Your task to perform on an android device: turn pop-ups off in chrome Image 0: 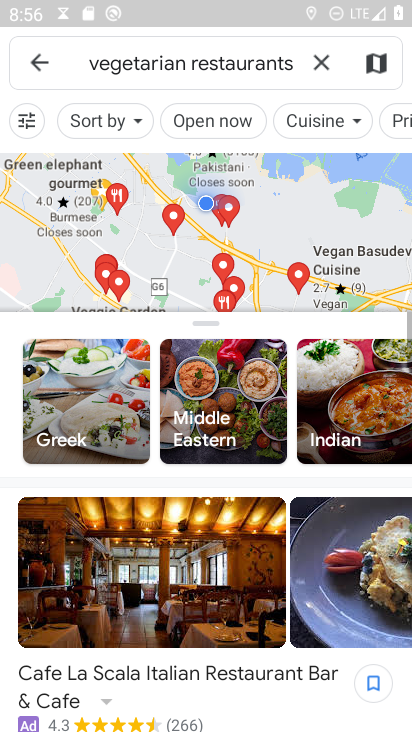
Step 0: drag from (241, 581) to (300, 152)
Your task to perform on an android device: turn pop-ups off in chrome Image 1: 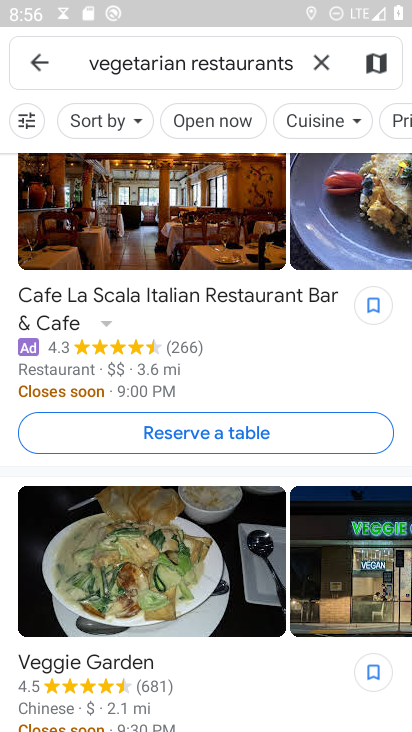
Step 1: press home button
Your task to perform on an android device: turn pop-ups off in chrome Image 2: 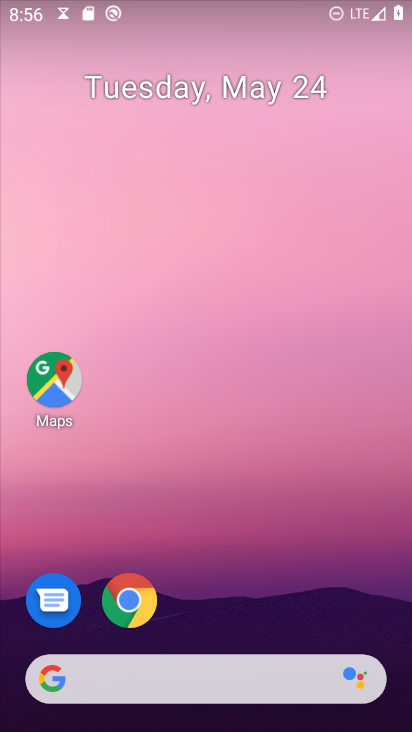
Step 2: click (118, 600)
Your task to perform on an android device: turn pop-ups off in chrome Image 3: 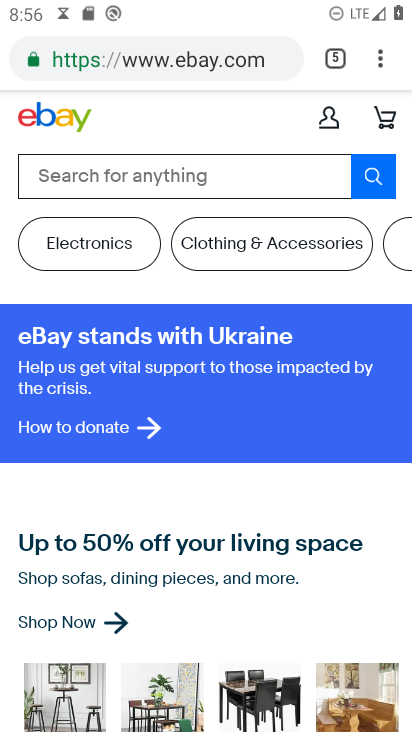
Step 3: drag from (378, 58) to (213, 640)
Your task to perform on an android device: turn pop-ups off in chrome Image 4: 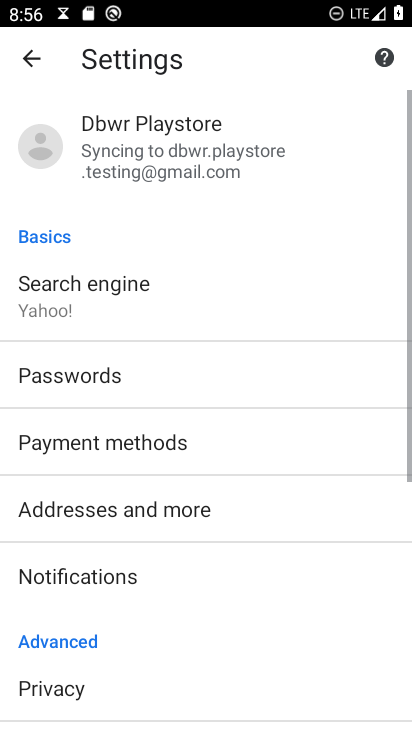
Step 4: drag from (151, 679) to (271, 183)
Your task to perform on an android device: turn pop-ups off in chrome Image 5: 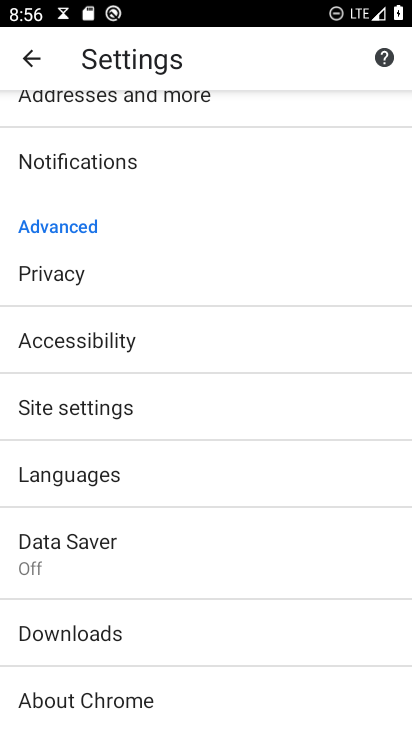
Step 5: click (55, 412)
Your task to perform on an android device: turn pop-ups off in chrome Image 6: 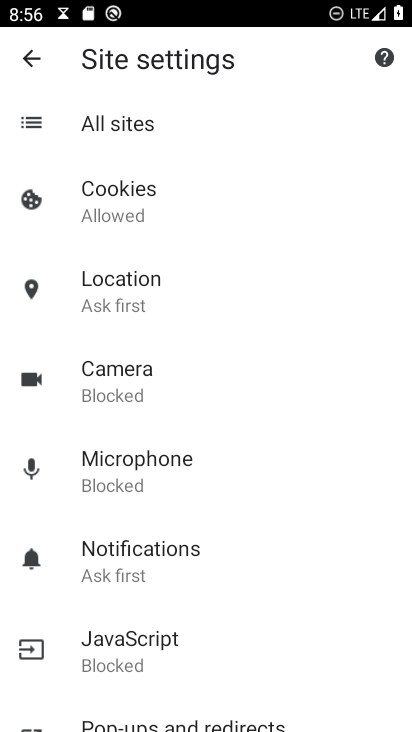
Step 6: drag from (173, 677) to (252, 396)
Your task to perform on an android device: turn pop-ups off in chrome Image 7: 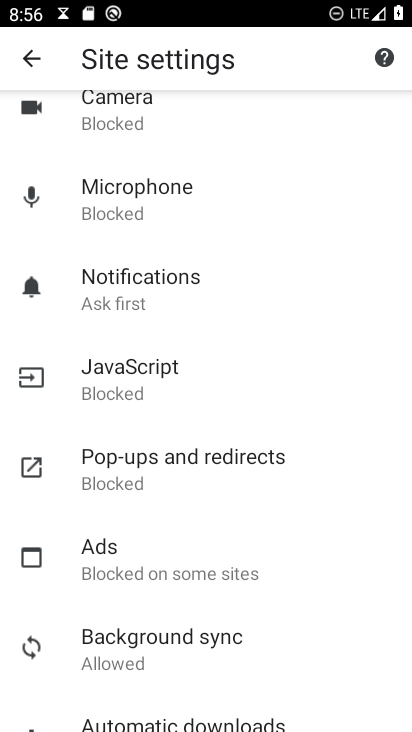
Step 7: click (165, 468)
Your task to perform on an android device: turn pop-ups off in chrome Image 8: 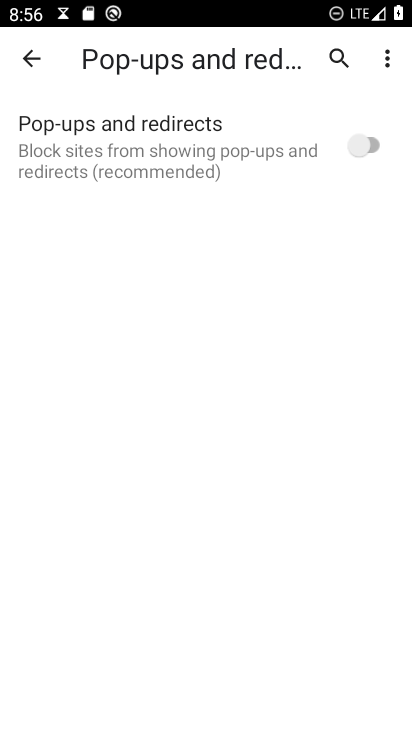
Step 8: task complete